Your task to perform on an android device: Show me productivity apps on the Play Store Image 0: 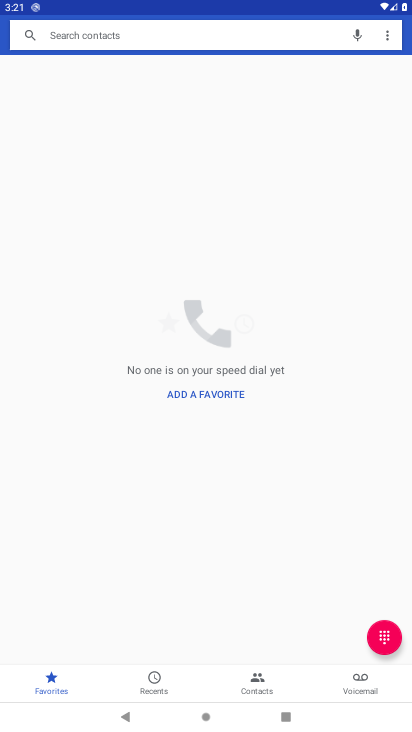
Step 0: press home button
Your task to perform on an android device: Show me productivity apps on the Play Store Image 1: 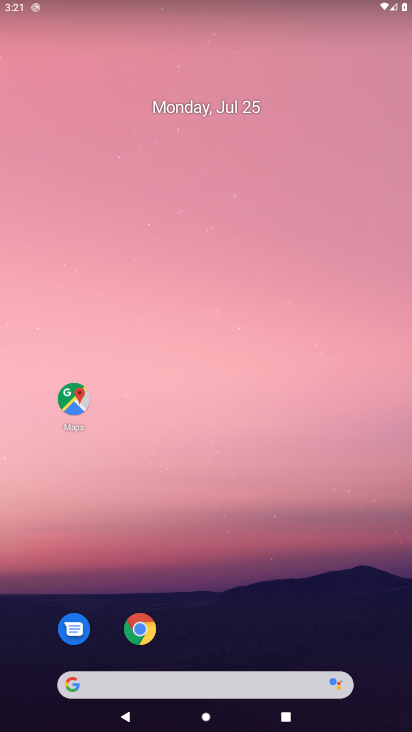
Step 1: click (146, 134)
Your task to perform on an android device: Show me productivity apps on the Play Store Image 2: 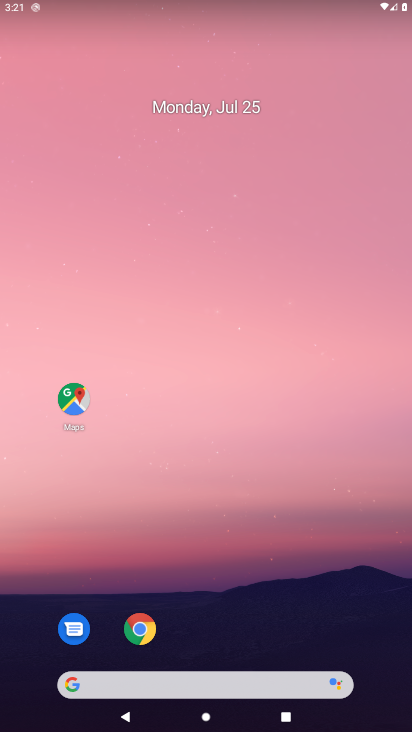
Step 2: drag from (16, 698) to (122, 136)
Your task to perform on an android device: Show me productivity apps on the Play Store Image 3: 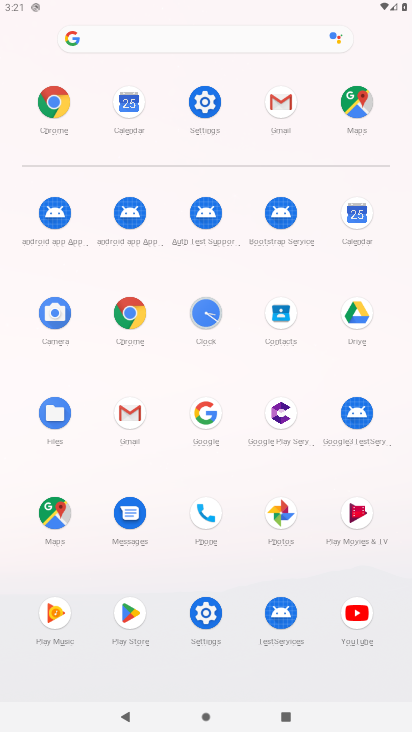
Step 3: click (139, 616)
Your task to perform on an android device: Show me productivity apps on the Play Store Image 4: 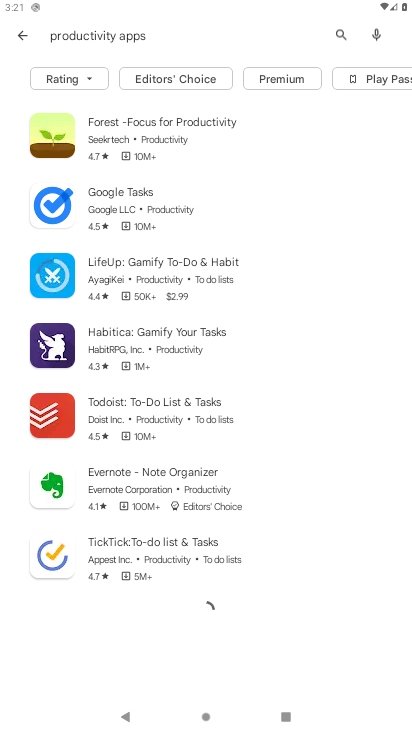
Step 4: task complete